Your task to perform on an android device: Go to Wikipedia Image 0: 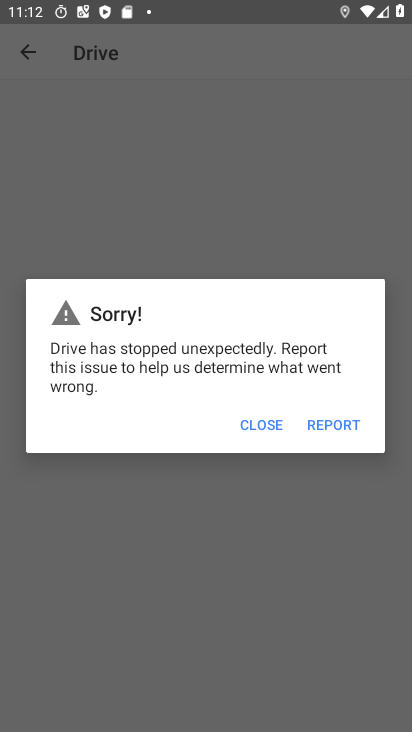
Step 0: press home button
Your task to perform on an android device: Go to Wikipedia Image 1: 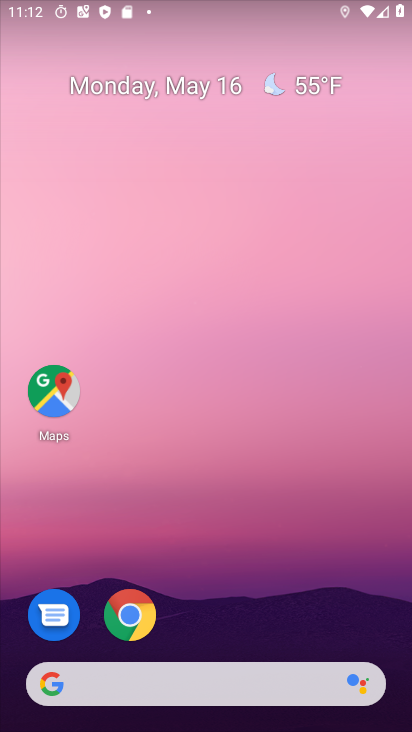
Step 1: drag from (252, 579) to (277, 45)
Your task to perform on an android device: Go to Wikipedia Image 2: 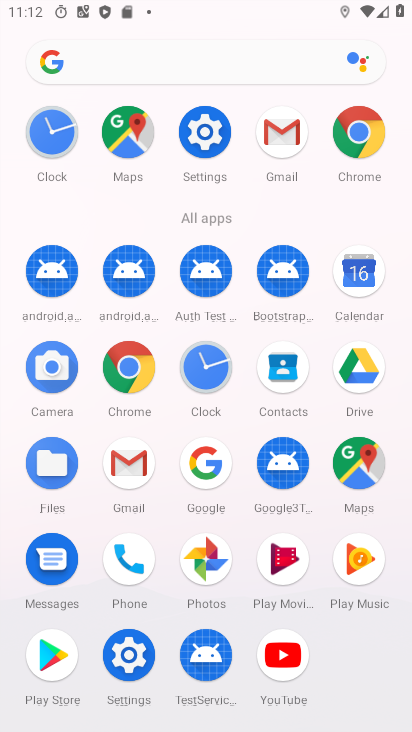
Step 2: click (362, 129)
Your task to perform on an android device: Go to Wikipedia Image 3: 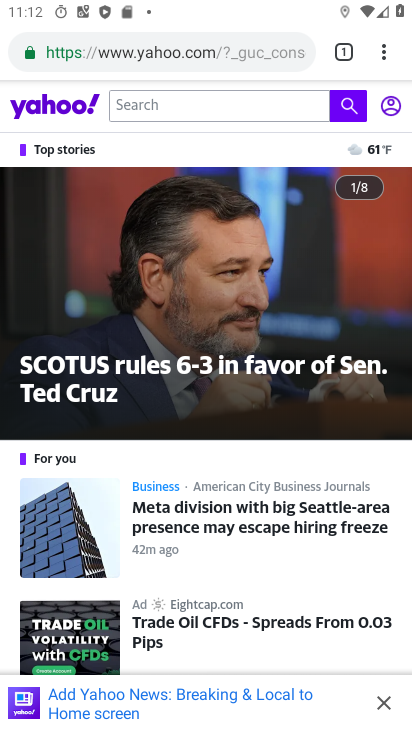
Step 3: drag from (380, 48) to (193, 116)
Your task to perform on an android device: Go to Wikipedia Image 4: 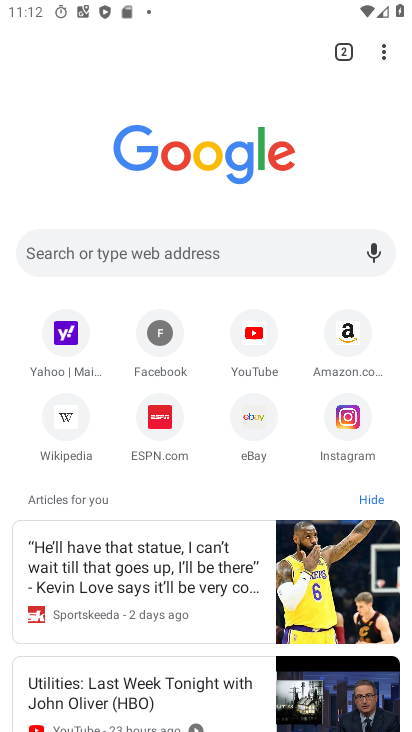
Step 4: click (56, 412)
Your task to perform on an android device: Go to Wikipedia Image 5: 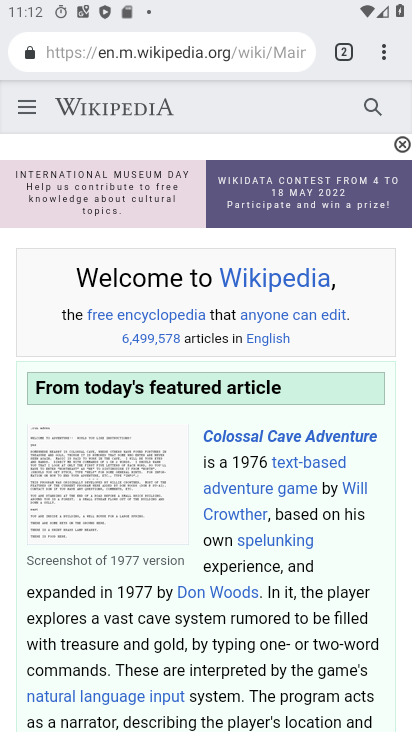
Step 5: task complete